Your task to perform on an android device: see sites visited before in the chrome app Image 0: 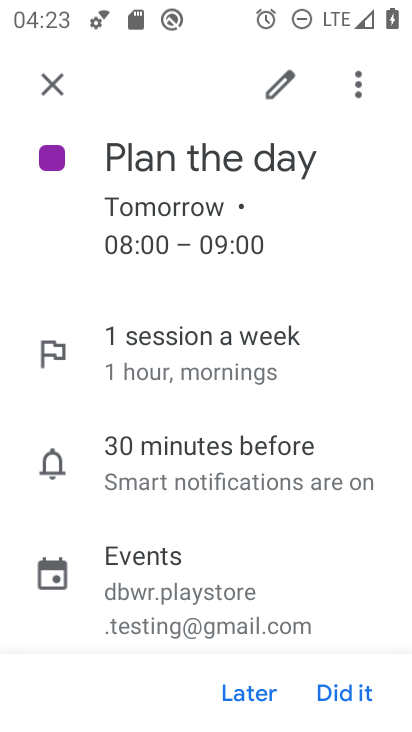
Step 0: press home button
Your task to perform on an android device: see sites visited before in the chrome app Image 1: 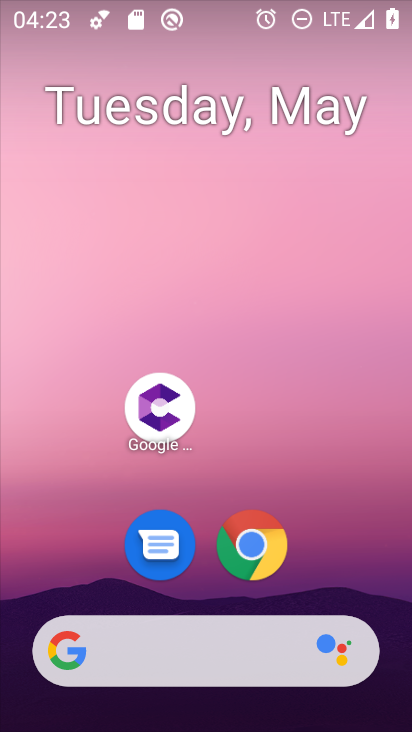
Step 1: drag from (340, 573) to (341, 231)
Your task to perform on an android device: see sites visited before in the chrome app Image 2: 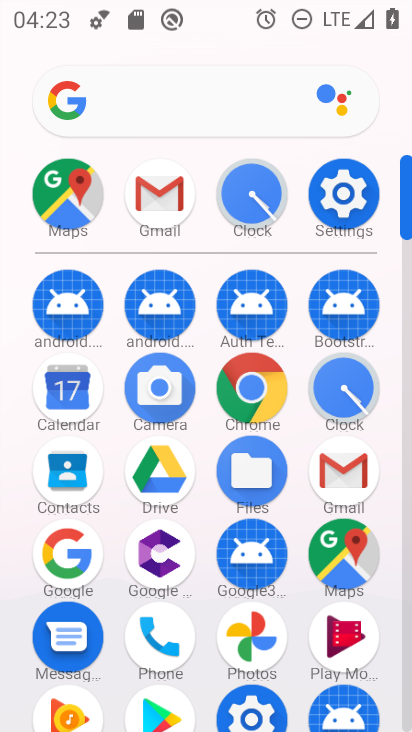
Step 2: click (269, 405)
Your task to perform on an android device: see sites visited before in the chrome app Image 3: 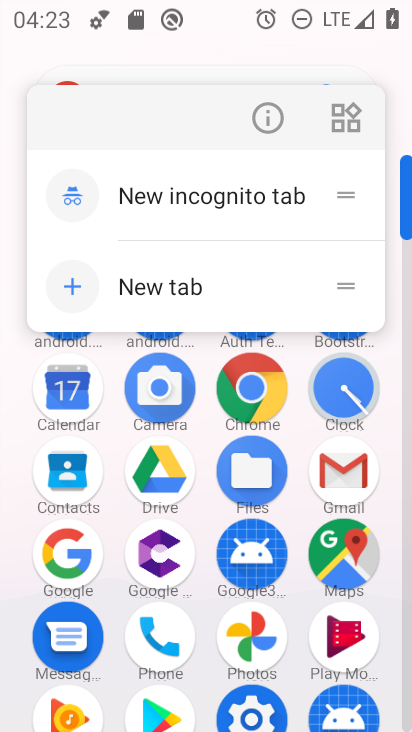
Step 3: click (269, 405)
Your task to perform on an android device: see sites visited before in the chrome app Image 4: 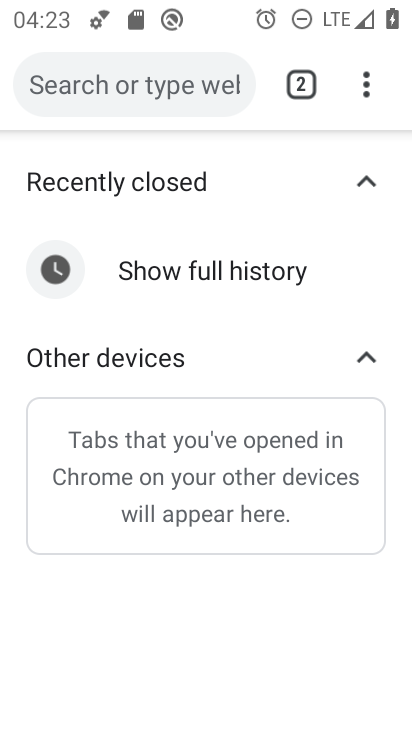
Step 4: click (367, 97)
Your task to perform on an android device: see sites visited before in the chrome app Image 5: 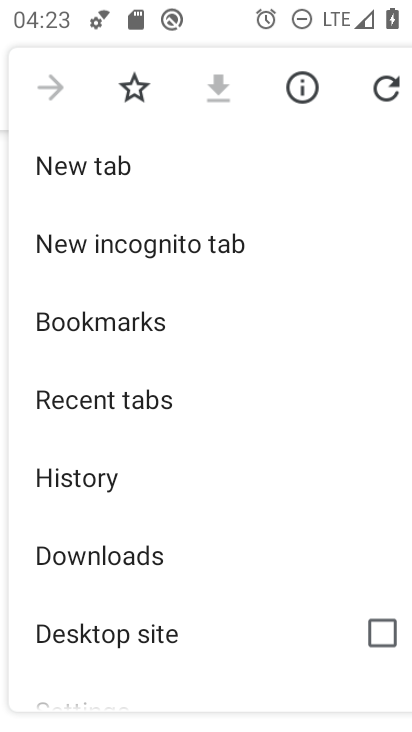
Step 5: drag from (277, 504) to (294, 405)
Your task to perform on an android device: see sites visited before in the chrome app Image 6: 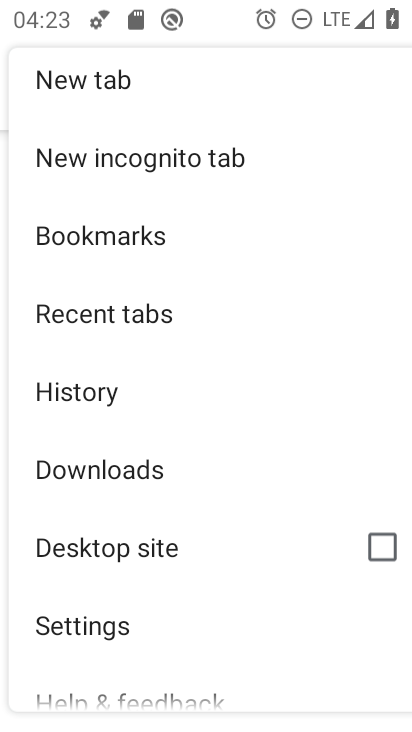
Step 6: drag from (260, 583) to (287, 460)
Your task to perform on an android device: see sites visited before in the chrome app Image 7: 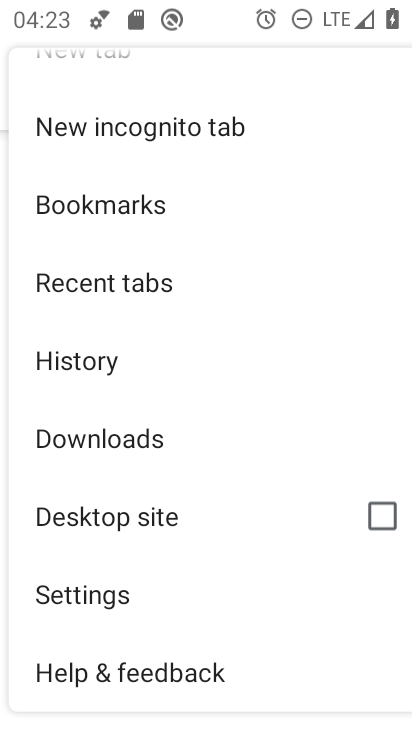
Step 7: drag from (261, 651) to (275, 528)
Your task to perform on an android device: see sites visited before in the chrome app Image 8: 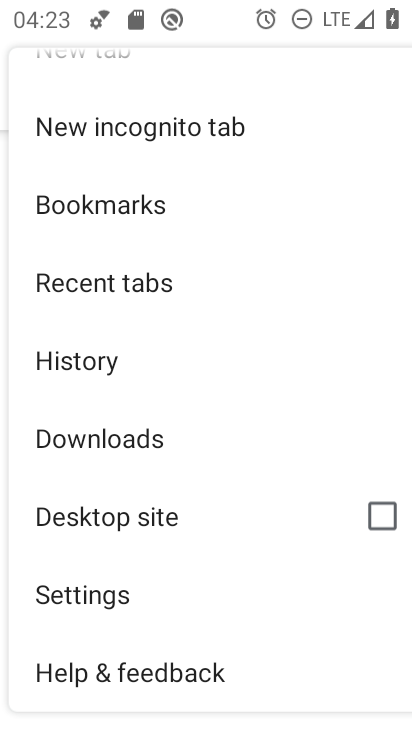
Step 8: drag from (261, 364) to (256, 485)
Your task to perform on an android device: see sites visited before in the chrome app Image 9: 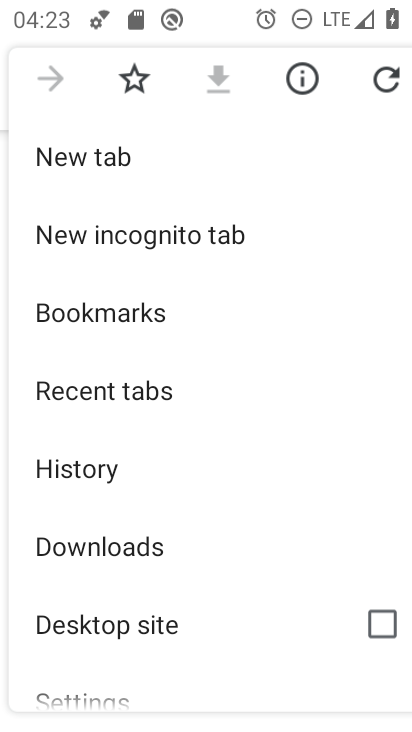
Step 9: drag from (272, 294) to (273, 413)
Your task to perform on an android device: see sites visited before in the chrome app Image 10: 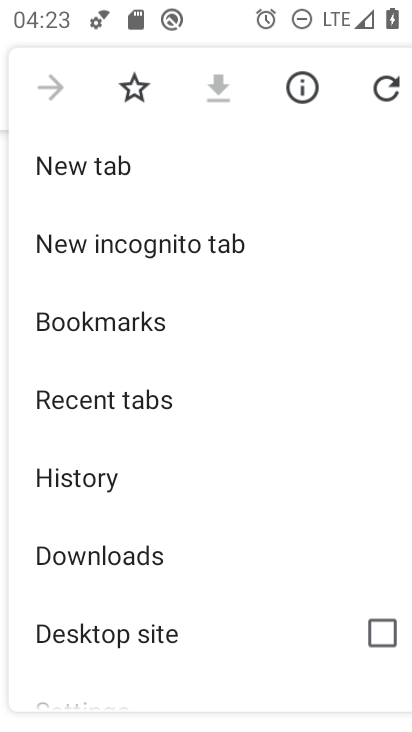
Step 10: drag from (286, 250) to (284, 412)
Your task to perform on an android device: see sites visited before in the chrome app Image 11: 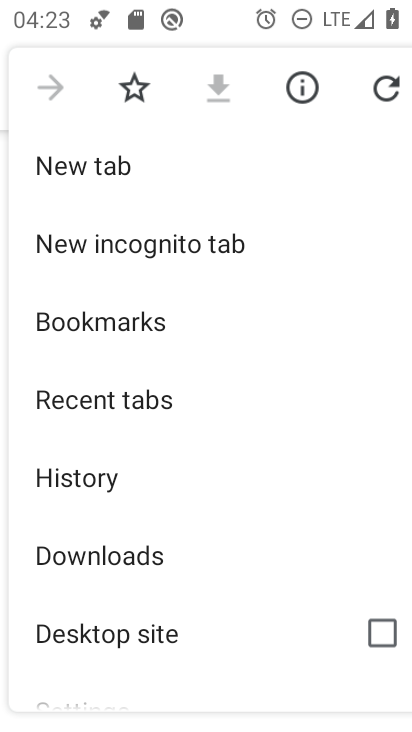
Step 11: drag from (282, 532) to (303, 396)
Your task to perform on an android device: see sites visited before in the chrome app Image 12: 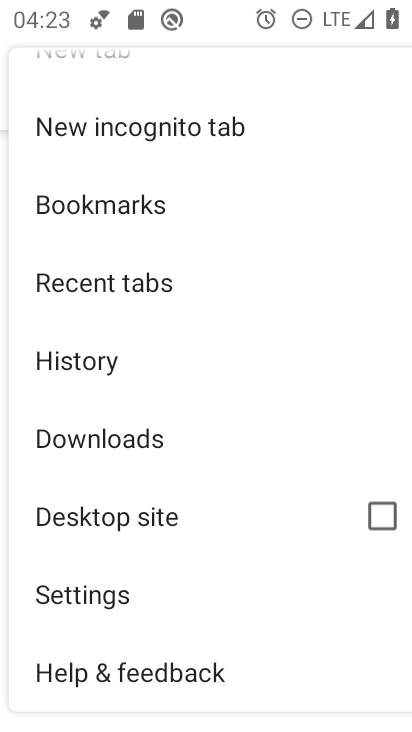
Step 12: drag from (278, 553) to (300, 453)
Your task to perform on an android device: see sites visited before in the chrome app Image 13: 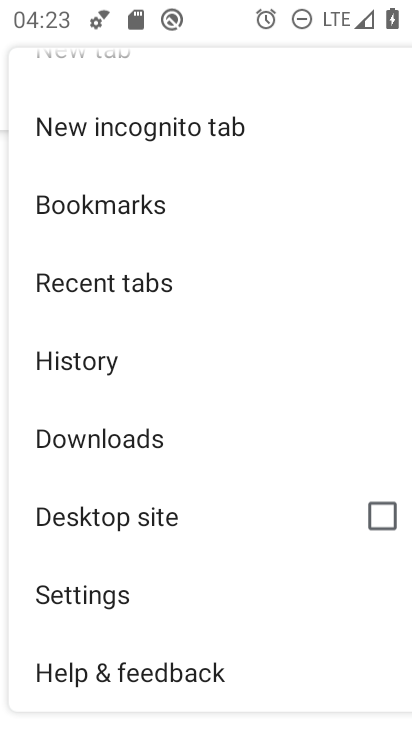
Step 13: click (151, 361)
Your task to perform on an android device: see sites visited before in the chrome app Image 14: 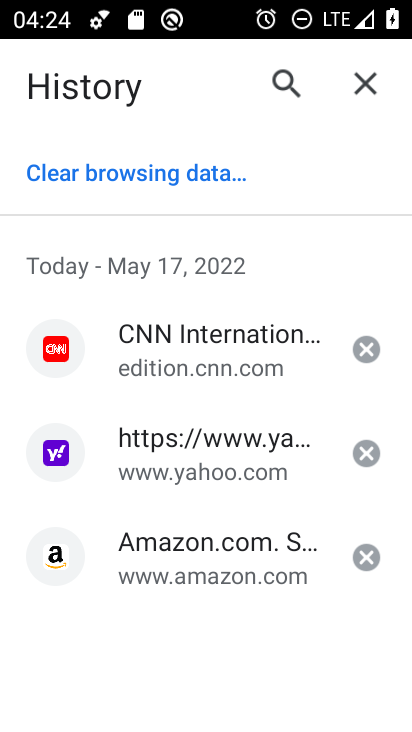
Step 14: task complete